Your task to perform on an android device: turn on sleep mode Image 0: 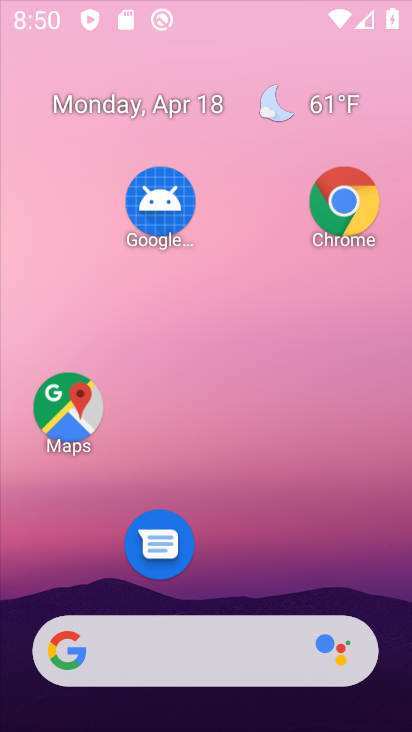
Step 0: click (207, 63)
Your task to perform on an android device: turn on sleep mode Image 1: 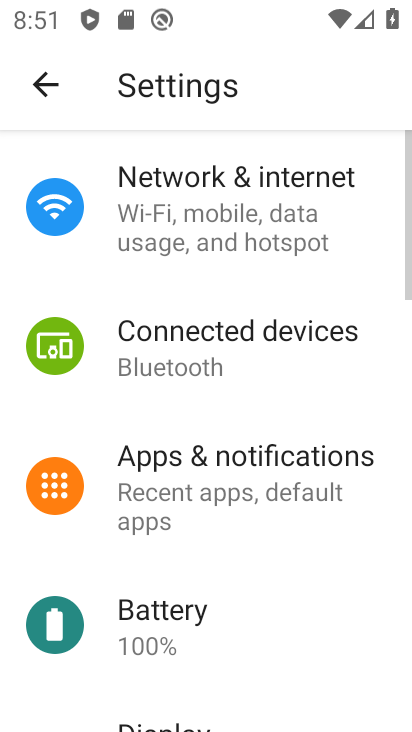
Step 1: drag from (213, 623) to (188, 351)
Your task to perform on an android device: turn on sleep mode Image 2: 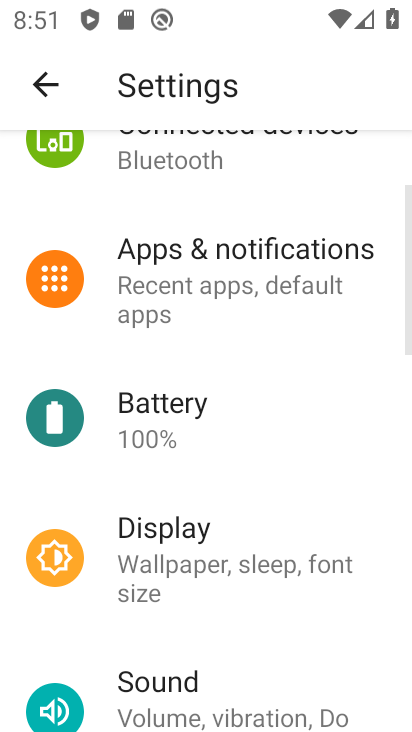
Step 2: click (174, 557)
Your task to perform on an android device: turn on sleep mode Image 3: 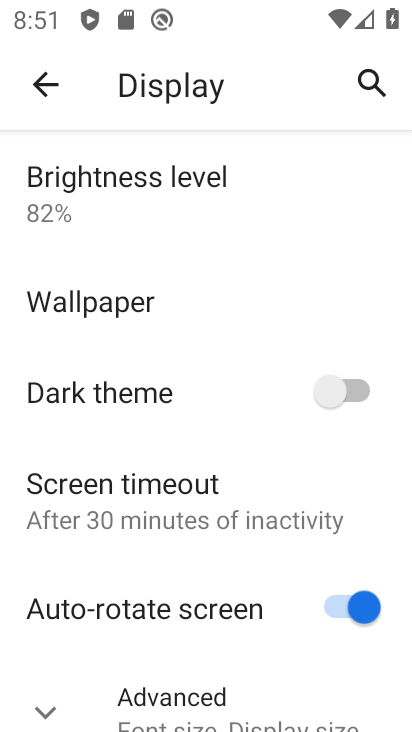
Step 3: click (182, 506)
Your task to perform on an android device: turn on sleep mode Image 4: 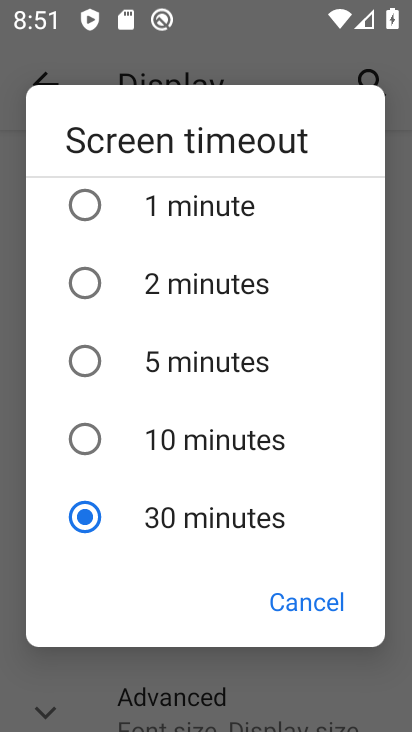
Step 4: task complete